Your task to perform on an android device: stop showing notifications on the lock screen Image 0: 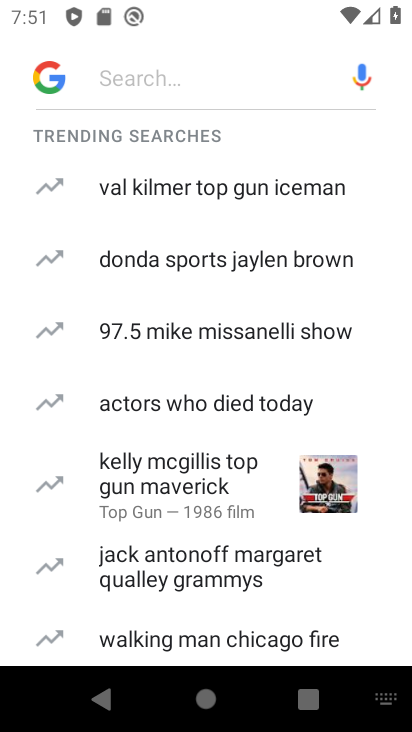
Step 0: press home button
Your task to perform on an android device: stop showing notifications on the lock screen Image 1: 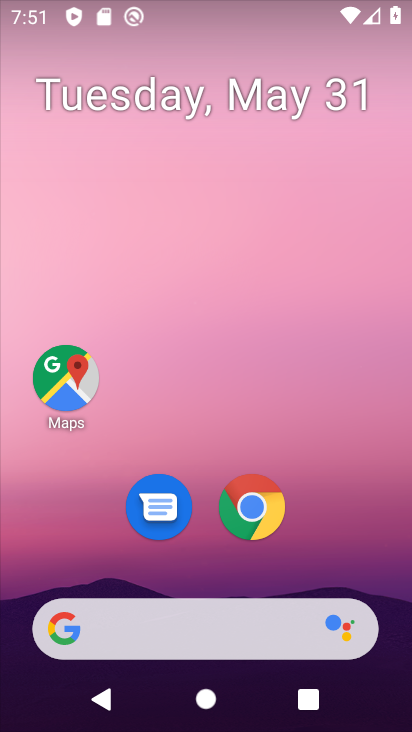
Step 1: drag from (366, 589) to (306, 0)
Your task to perform on an android device: stop showing notifications on the lock screen Image 2: 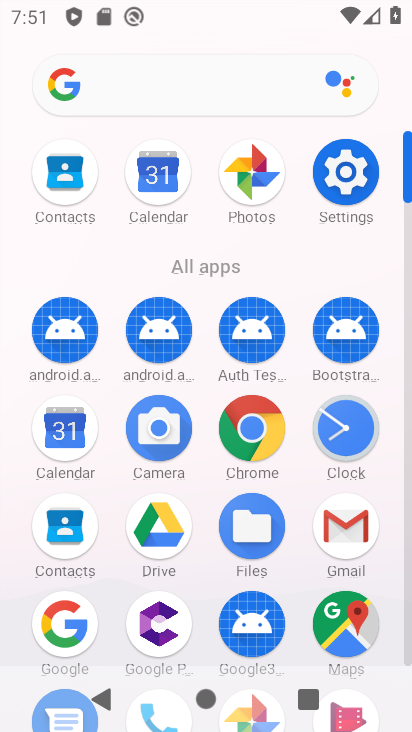
Step 2: click (341, 173)
Your task to perform on an android device: stop showing notifications on the lock screen Image 3: 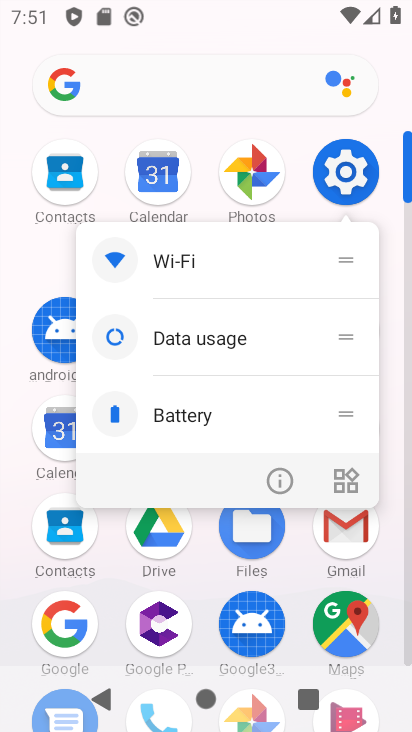
Step 3: click (341, 173)
Your task to perform on an android device: stop showing notifications on the lock screen Image 4: 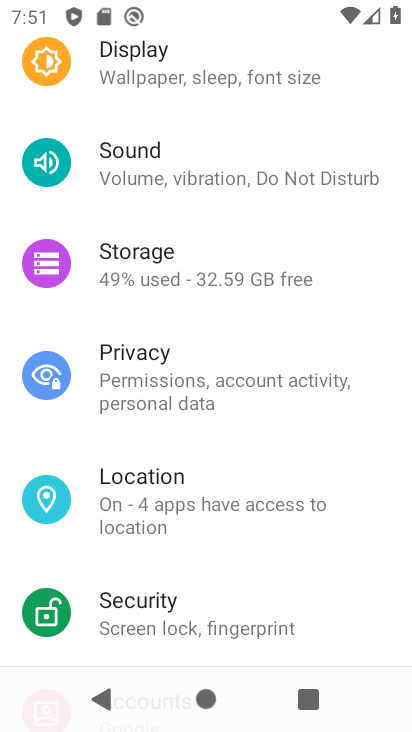
Step 4: drag from (318, 130) to (380, 489)
Your task to perform on an android device: stop showing notifications on the lock screen Image 5: 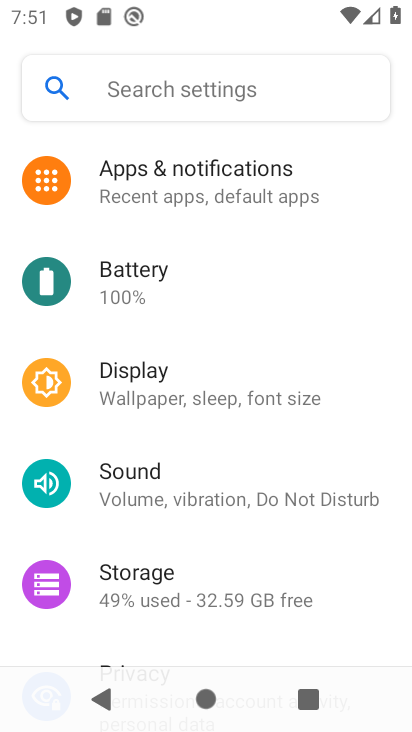
Step 5: click (204, 187)
Your task to perform on an android device: stop showing notifications on the lock screen Image 6: 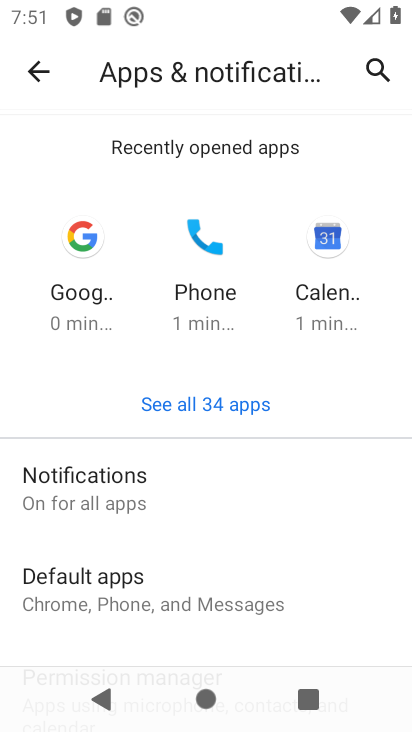
Step 6: click (37, 501)
Your task to perform on an android device: stop showing notifications on the lock screen Image 7: 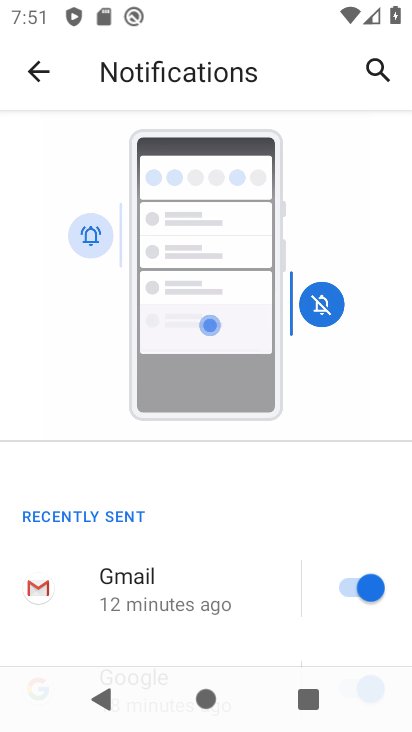
Step 7: drag from (68, 544) to (102, 155)
Your task to perform on an android device: stop showing notifications on the lock screen Image 8: 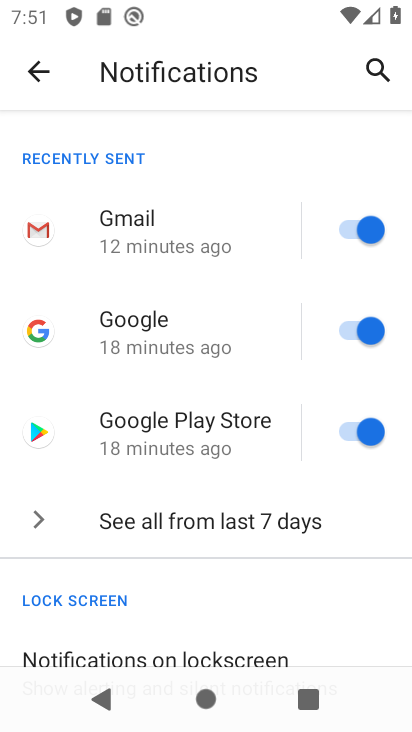
Step 8: drag from (107, 520) to (128, 84)
Your task to perform on an android device: stop showing notifications on the lock screen Image 9: 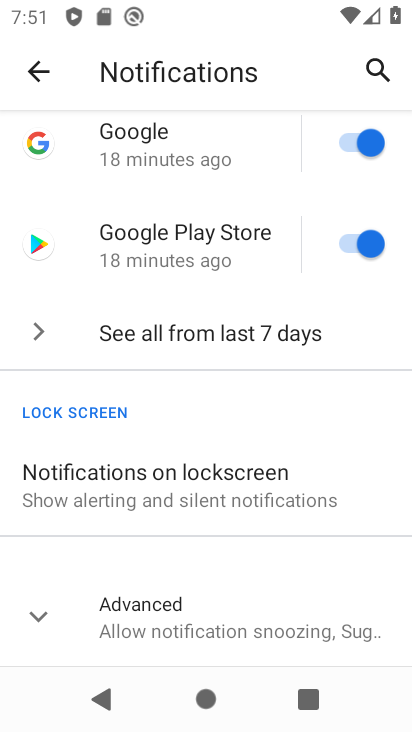
Step 9: click (94, 487)
Your task to perform on an android device: stop showing notifications on the lock screen Image 10: 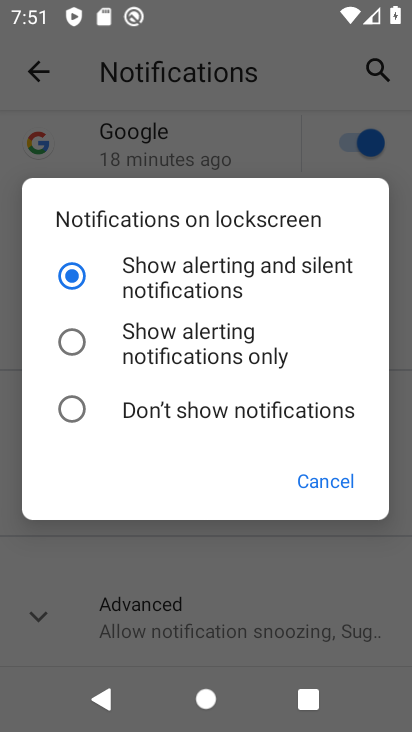
Step 10: click (72, 406)
Your task to perform on an android device: stop showing notifications on the lock screen Image 11: 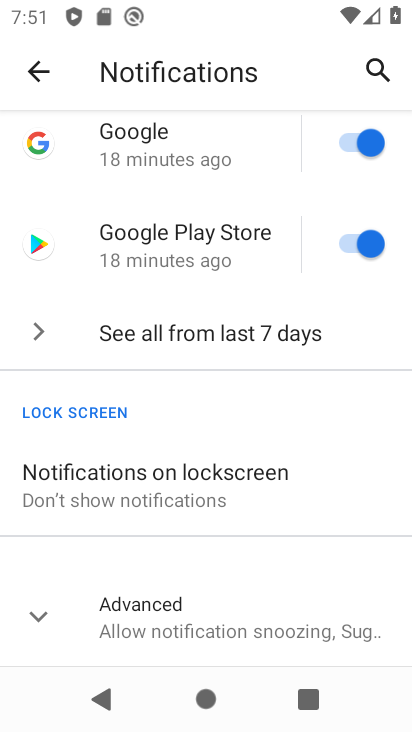
Step 11: task complete